Your task to perform on an android device: Open Google Chrome Image 0: 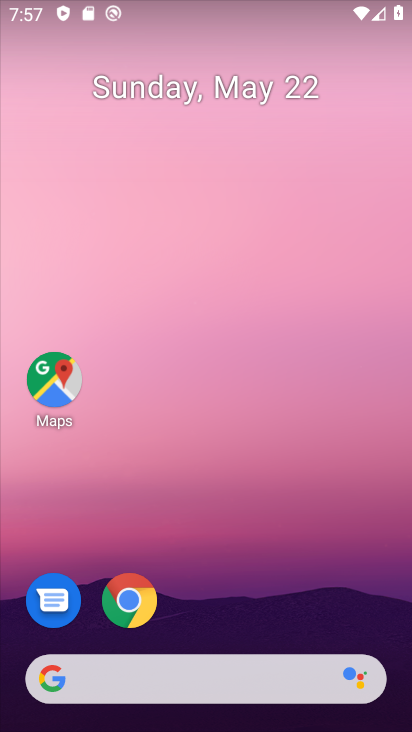
Step 0: click (131, 608)
Your task to perform on an android device: Open Google Chrome Image 1: 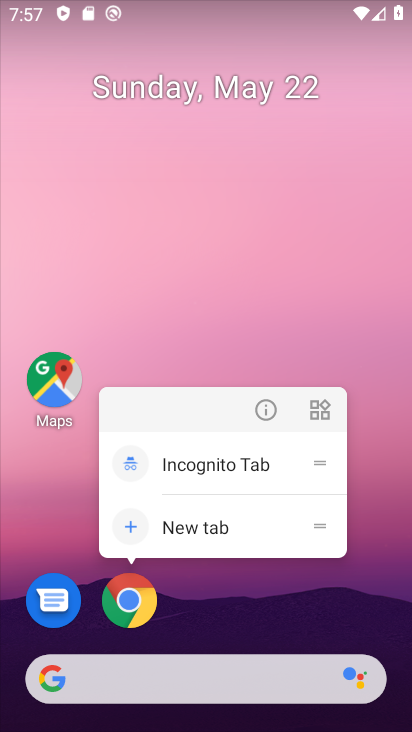
Step 1: click (131, 608)
Your task to perform on an android device: Open Google Chrome Image 2: 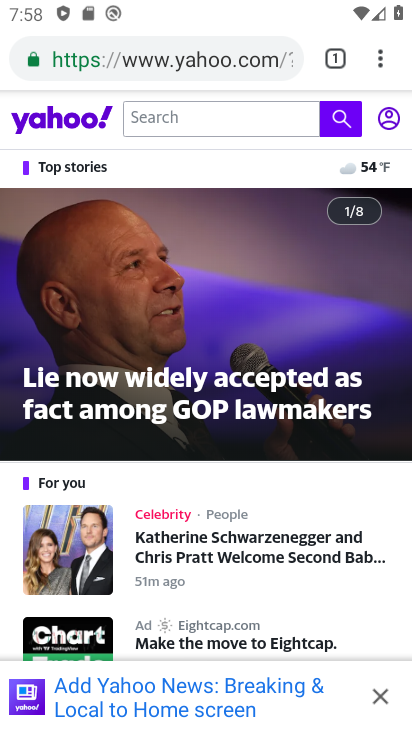
Step 2: task complete